Your task to perform on an android device: When is my next appointment? Image 0: 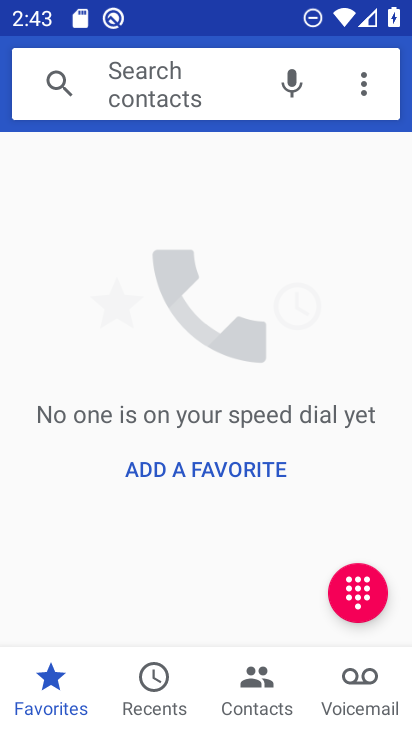
Step 0: press home button
Your task to perform on an android device: When is my next appointment? Image 1: 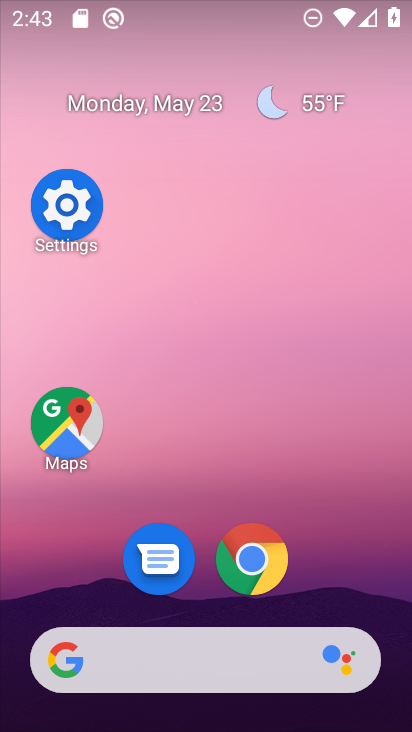
Step 1: drag from (306, 550) to (292, 123)
Your task to perform on an android device: When is my next appointment? Image 2: 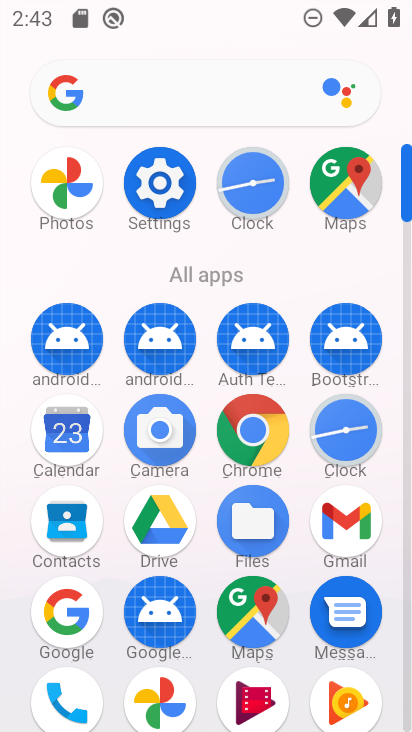
Step 2: click (67, 450)
Your task to perform on an android device: When is my next appointment? Image 3: 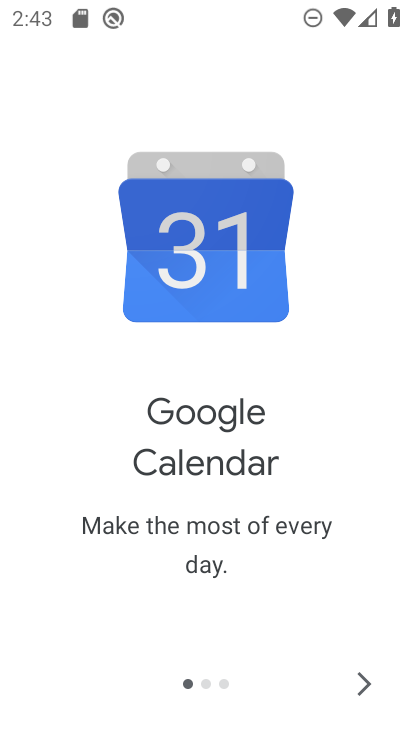
Step 3: click (361, 699)
Your task to perform on an android device: When is my next appointment? Image 4: 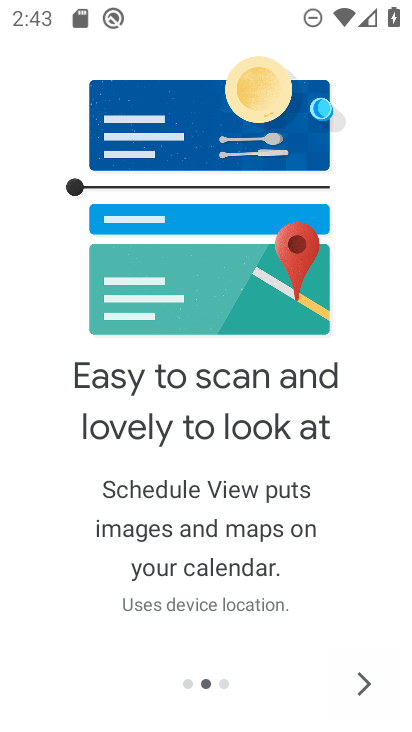
Step 4: click (362, 699)
Your task to perform on an android device: When is my next appointment? Image 5: 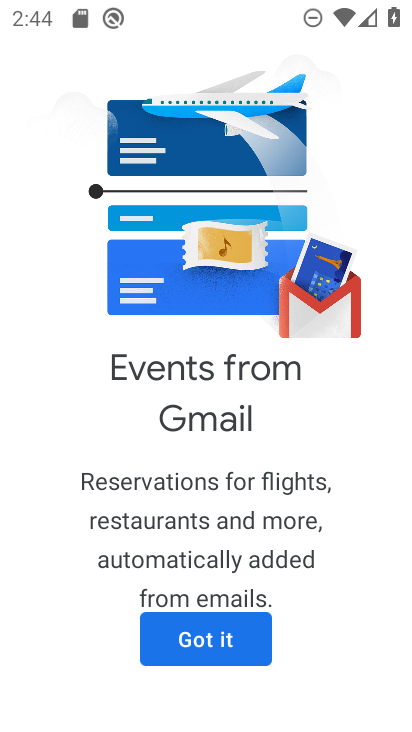
Step 5: click (201, 642)
Your task to perform on an android device: When is my next appointment? Image 6: 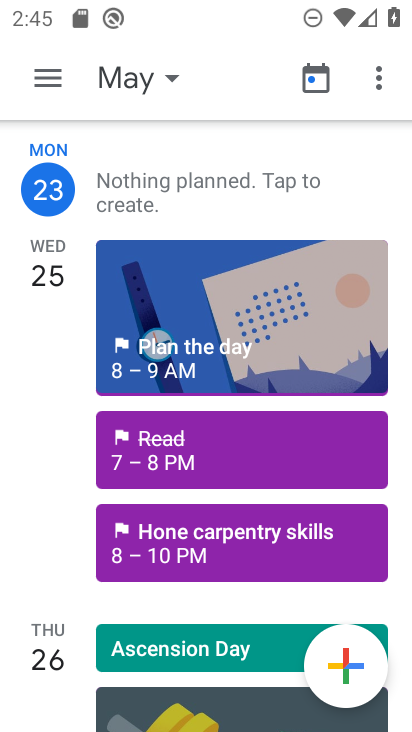
Step 6: drag from (279, 178) to (1, 129)
Your task to perform on an android device: When is my next appointment? Image 7: 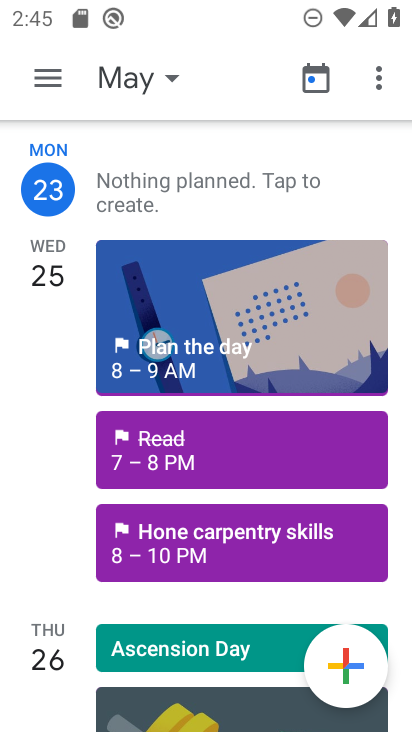
Step 7: click (71, 77)
Your task to perform on an android device: When is my next appointment? Image 8: 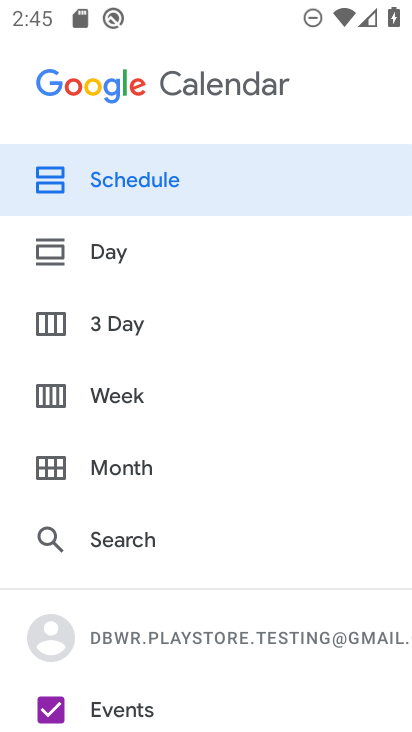
Step 8: click (113, 325)
Your task to perform on an android device: When is my next appointment? Image 9: 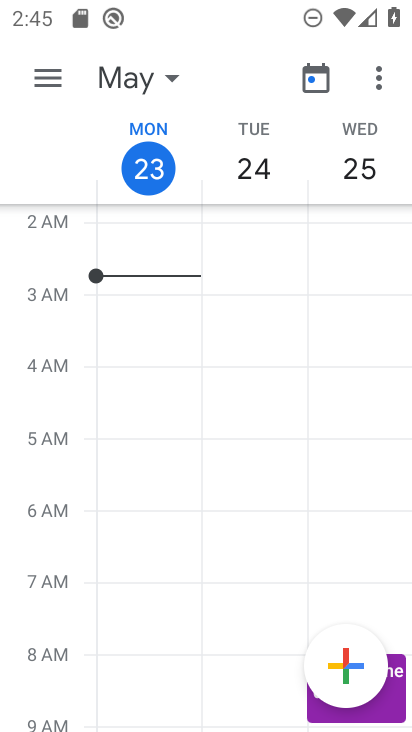
Step 9: click (280, 165)
Your task to perform on an android device: When is my next appointment? Image 10: 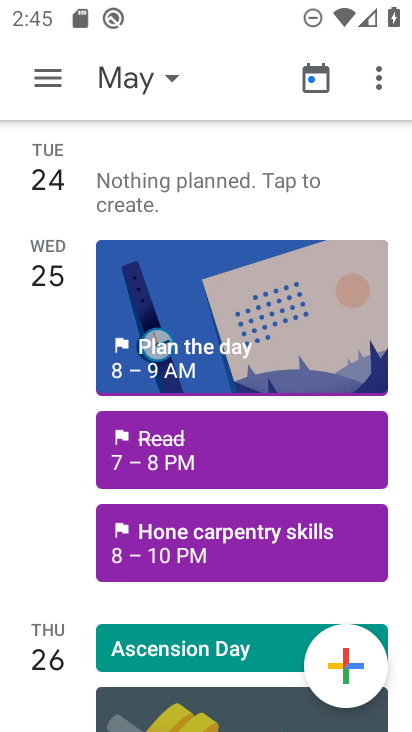
Step 10: task complete